Your task to perform on an android device: find which apps use the phone's location Image 0: 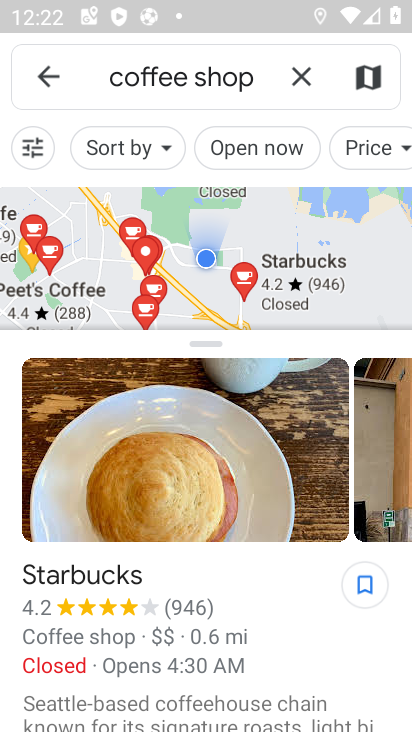
Step 0: press home button
Your task to perform on an android device: find which apps use the phone's location Image 1: 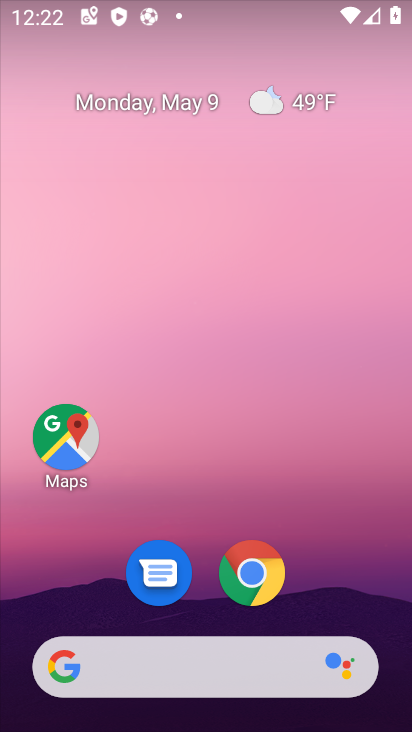
Step 1: drag from (241, 721) to (230, 205)
Your task to perform on an android device: find which apps use the phone's location Image 2: 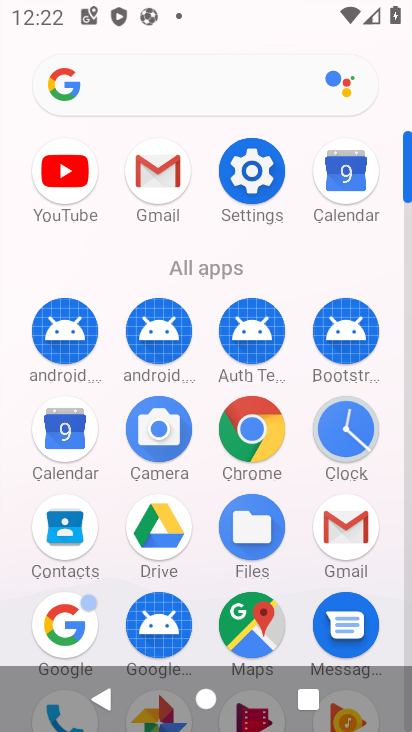
Step 2: click (245, 183)
Your task to perform on an android device: find which apps use the phone's location Image 3: 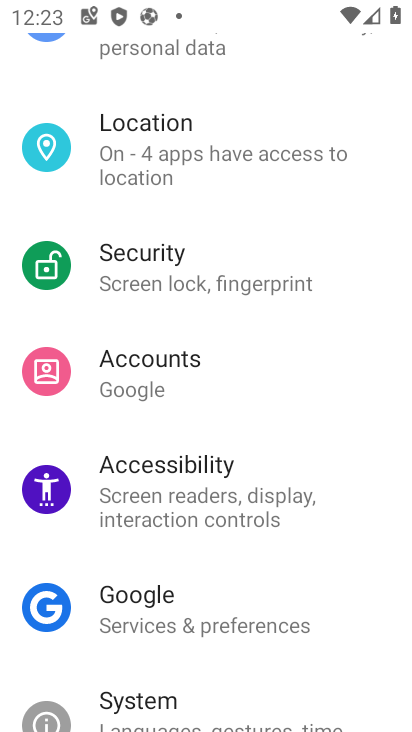
Step 3: click (191, 155)
Your task to perform on an android device: find which apps use the phone's location Image 4: 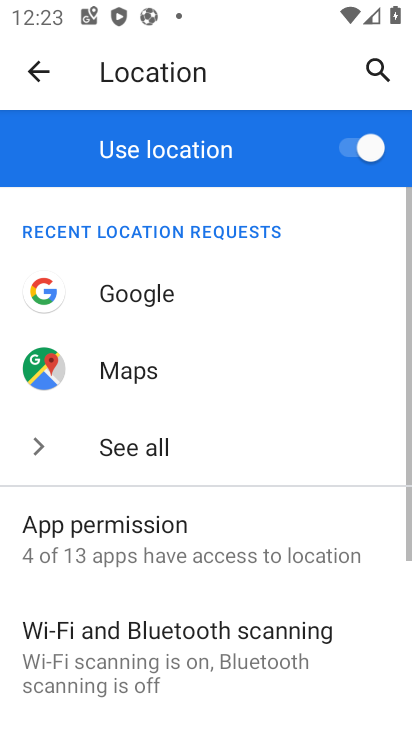
Step 4: task complete